Your task to perform on an android device: Do I have any events today? Image 0: 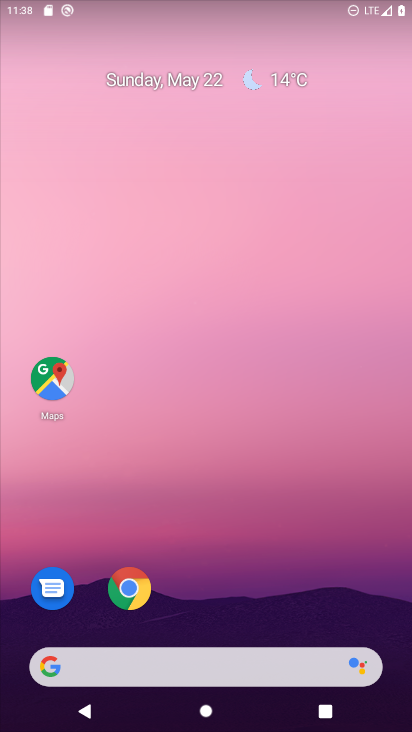
Step 0: drag from (246, 616) to (224, 219)
Your task to perform on an android device: Do I have any events today? Image 1: 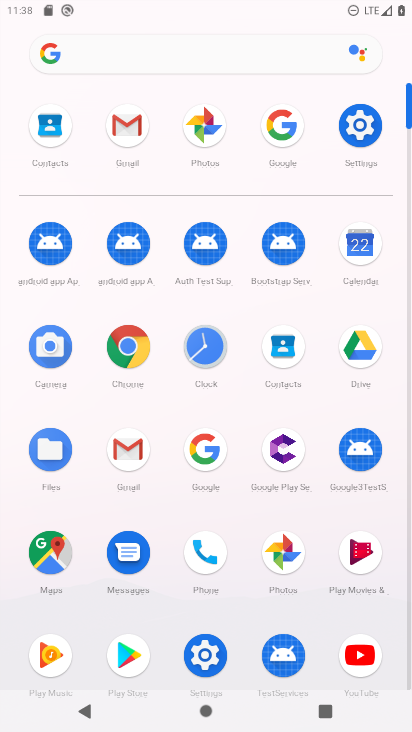
Step 1: click (351, 253)
Your task to perform on an android device: Do I have any events today? Image 2: 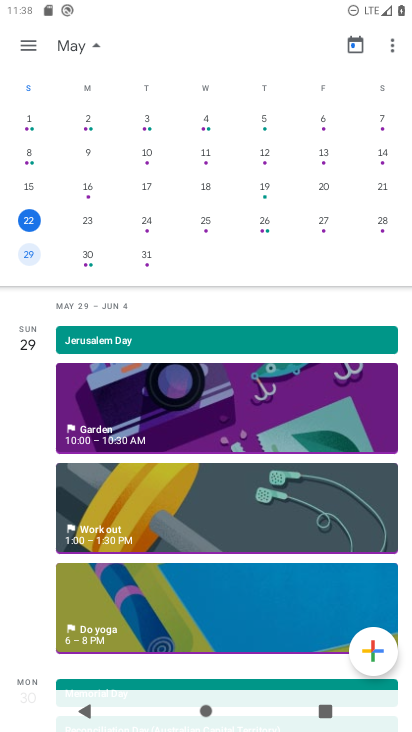
Step 2: click (33, 216)
Your task to perform on an android device: Do I have any events today? Image 3: 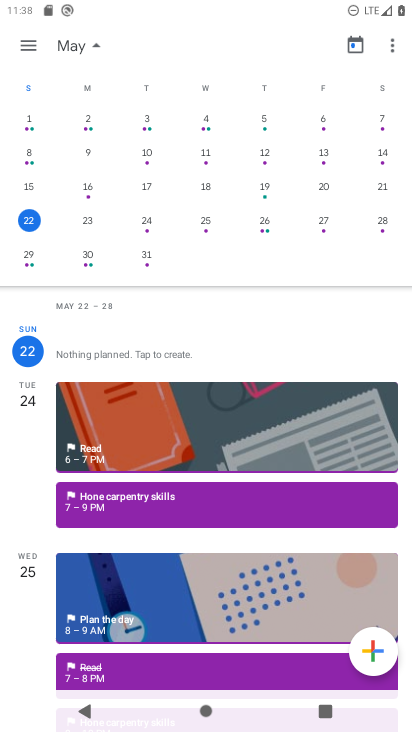
Step 3: task complete